Your task to perform on an android device: Search for the best coffee tables on Crate & Barrel Image 0: 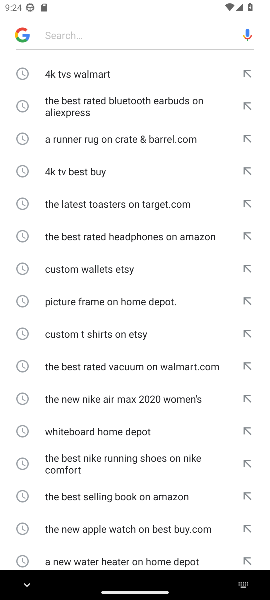
Step 0: type "best coffee tables on Crate & Barrel"
Your task to perform on an android device: Search for the best coffee tables on Crate & Barrel Image 1: 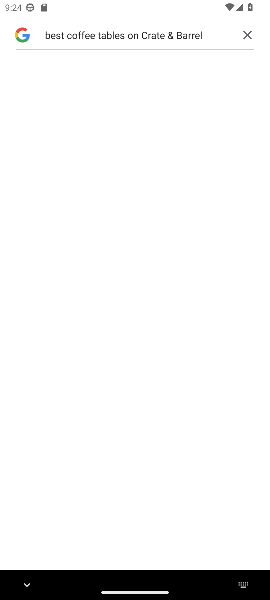
Step 1: click (243, 36)
Your task to perform on an android device: Search for the best coffee tables on Crate & Barrel Image 2: 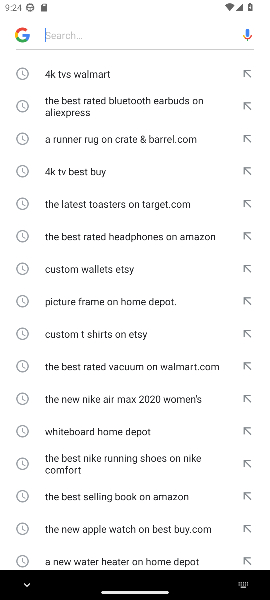
Step 2: task complete